Your task to perform on an android device: change keyboard looks Image 0: 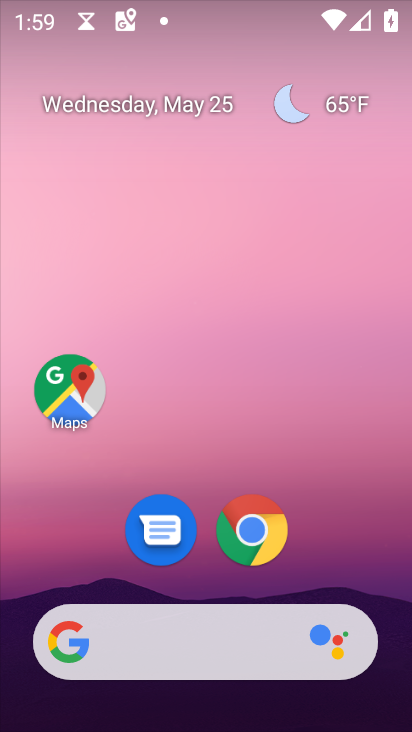
Step 0: drag from (332, 564) to (348, 263)
Your task to perform on an android device: change keyboard looks Image 1: 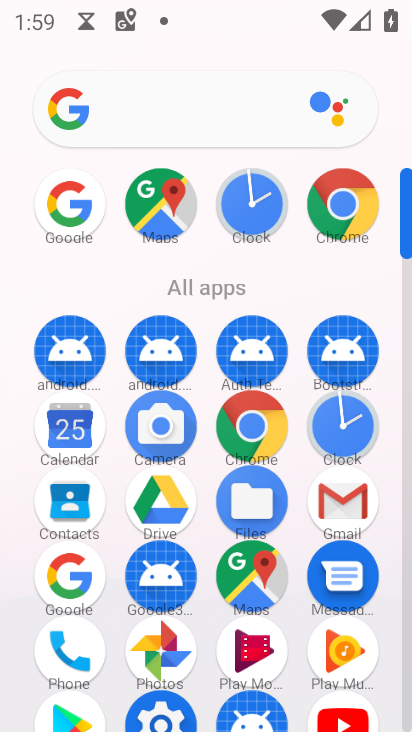
Step 1: drag from (197, 628) to (227, 397)
Your task to perform on an android device: change keyboard looks Image 2: 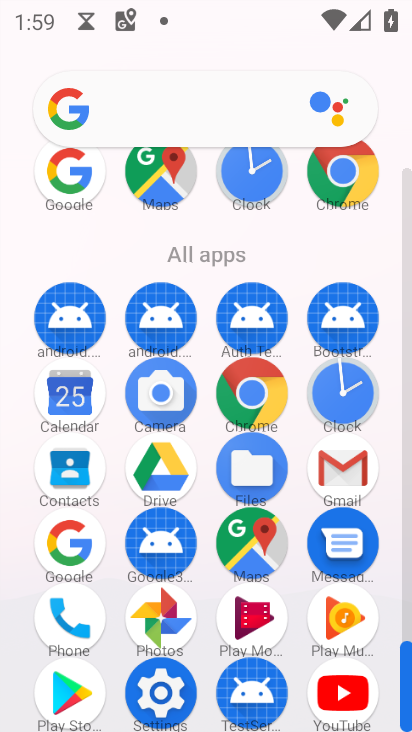
Step 2: click (148, 688)
Your task to perform on an android device: change keyboard looks Image 3: 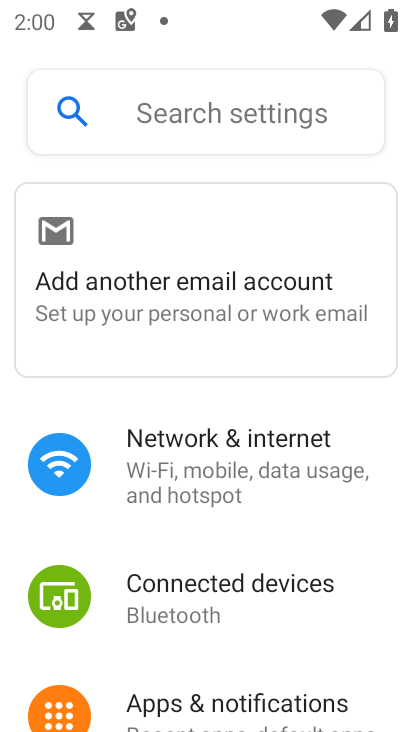
Step 3: drag from (194, 690) to (251, 196)
Your task to perform on an android device: change keyboard looks Image 4: 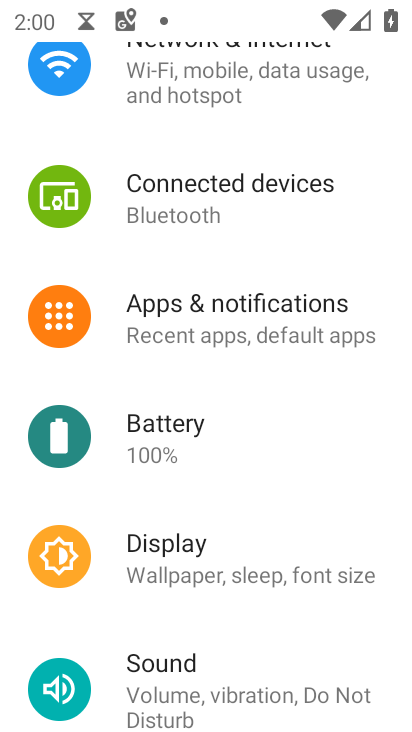
Step 4: drag from (221, 620) to (250, 228)
Your task to perform on an android device: change keyboard looks Image 5: 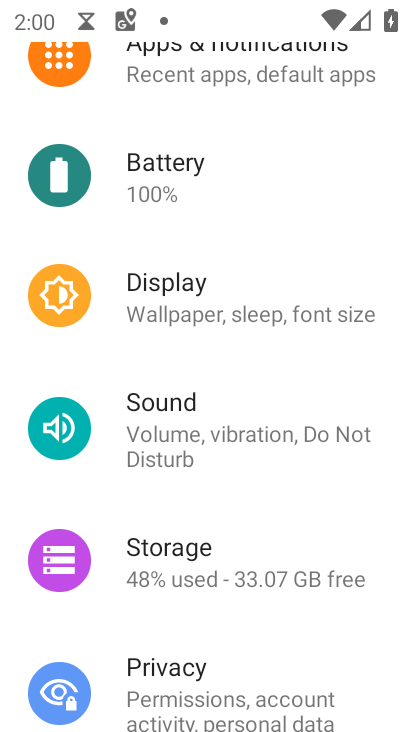
Step 5: drag from (200, 636) to (209, 175)
Your task to perform on an android device: change keyboard looks Image 6: 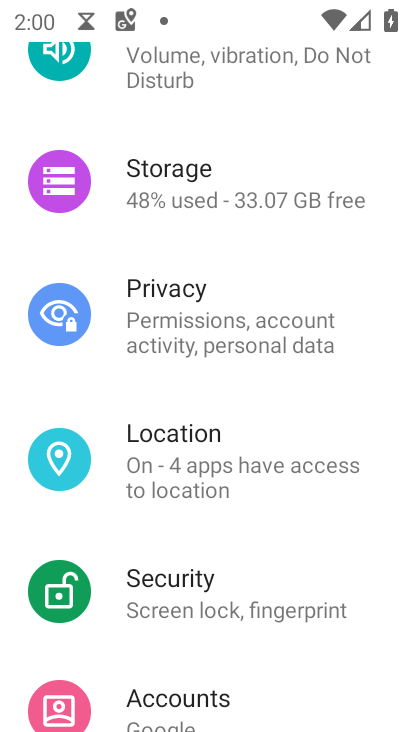
Step 6: drag from (229, 636) to (240, 357)
Your task to perform on an android device: change keyboard looks Image 7: 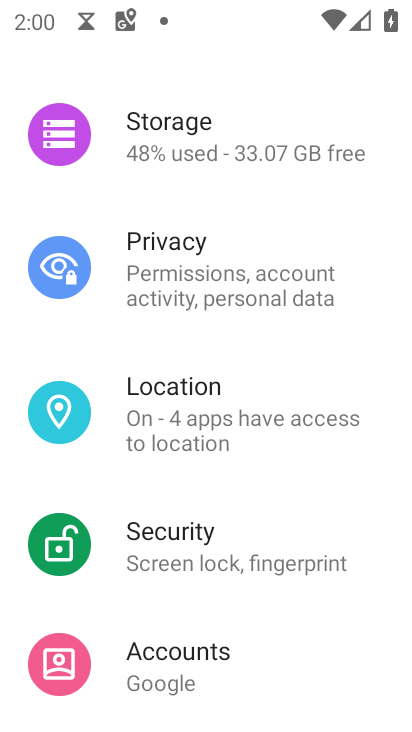
Step 7: drag from (256, 432) to (256, 284)
Your task to perform on an android device: change keyboard looks Image 8: 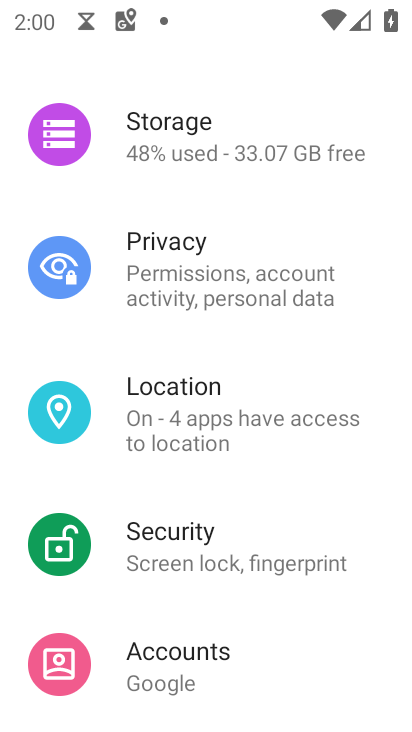
Step 8: drag from (241, 518) to (281, 350)
Your task to perform on an android device: change keyboard looks Image 9: 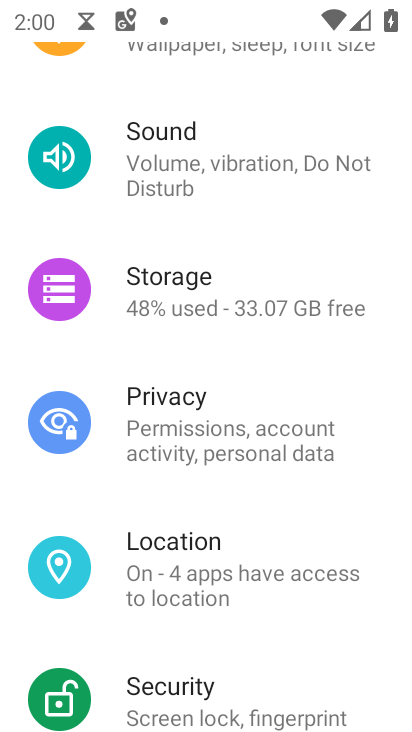
Step 9: drag from (258, 580) to (296, 284)
Your task to perform on an android device: change keyboard looks Image 10: 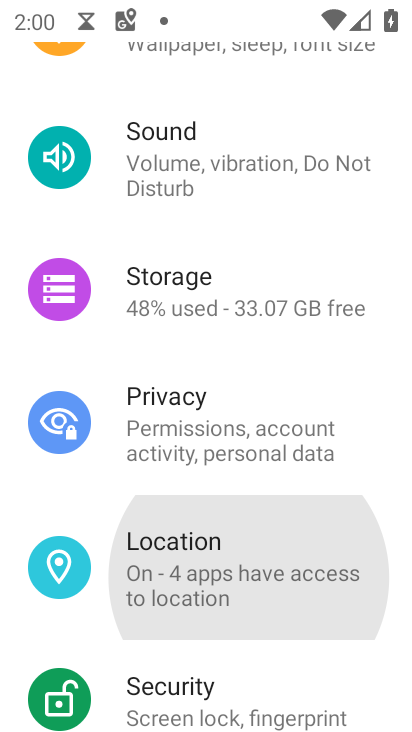
Step 10: drag from (280, 567) to (308, 373)
Your task to perform on an android device: change keyboard looks Image 11: 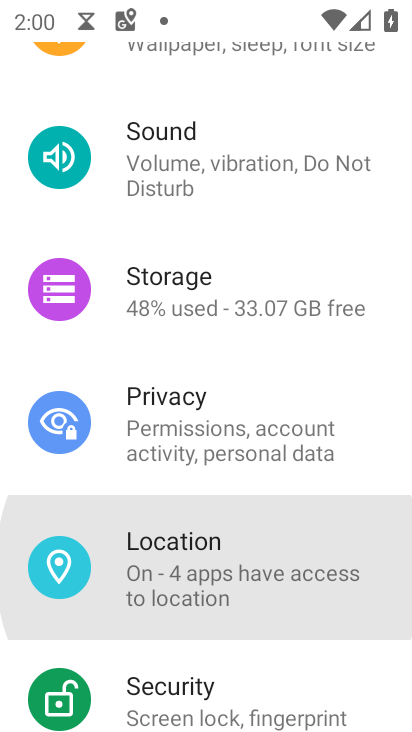
Step 11: drag from (290, 461) to (293, 270)
Your task to perform on an android device: change keyboard looks Image 12: 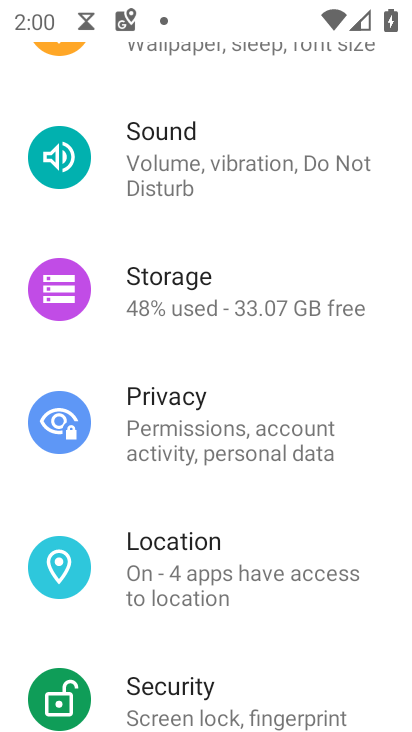
Step 12: drag from (252, 587) to (252, 417)
Your task to perform on an android device: change keyboard looks Image 13: 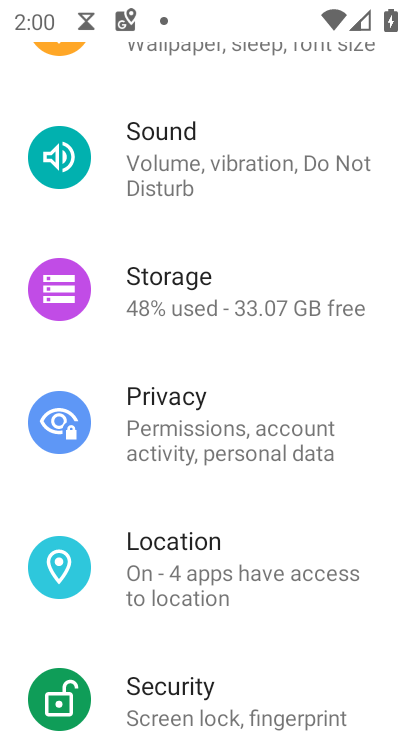
Step 13: drag from (231, 585) to (271, 303)
Your task to perform on an android device: change keyboard looks Image 14: 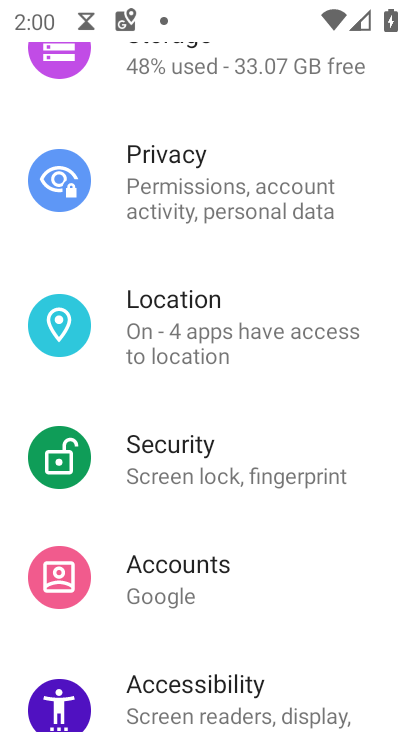
Step 14: drag from (284, 624) to (295, 156)
Your task to perform on an android device: change keyboard looks Image 15: 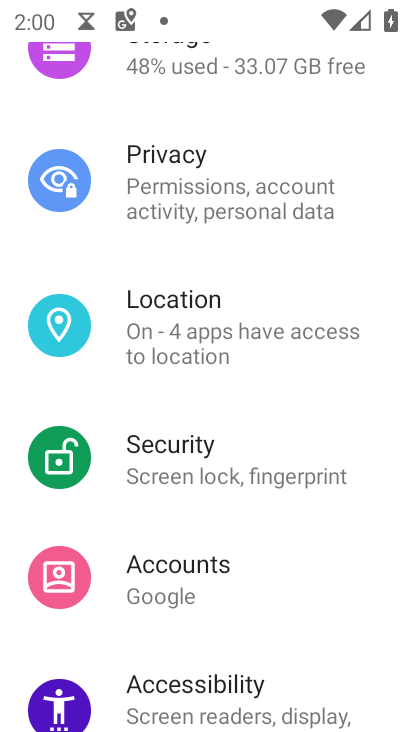
Step 15: drag from (210, 618) to (225, 249)
Your task to perform on an android device: change keyboard looks Image 16: 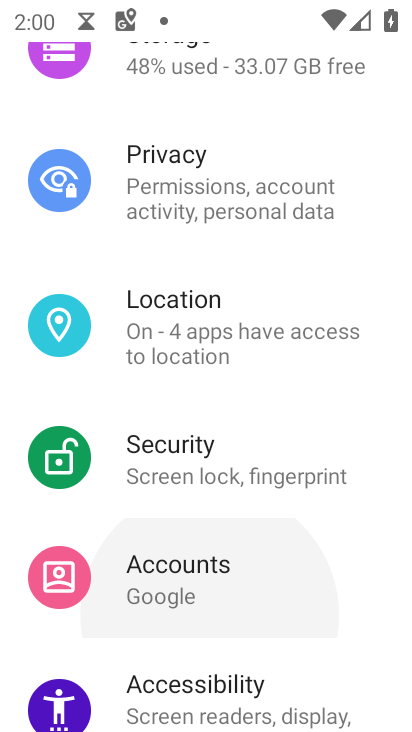
Step 16: drag from (191, 582) to (224, 299)
Your task to perform on an android device: change keyboard looks Image 17: 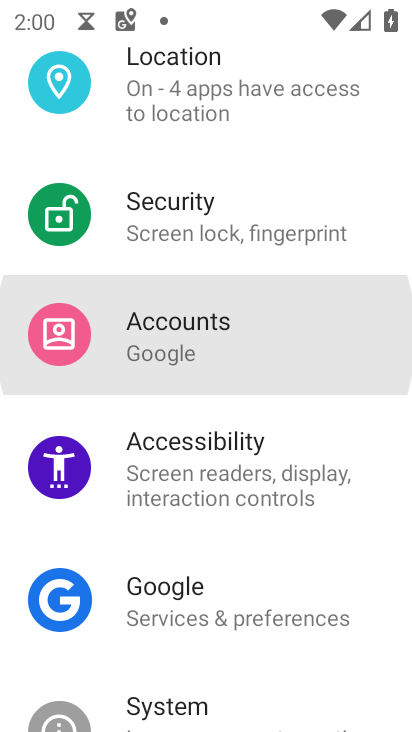
Step 17: drag from (254, 573) to (281, 342)
Your task to perform on an android device: change keyboard looks Image 18: 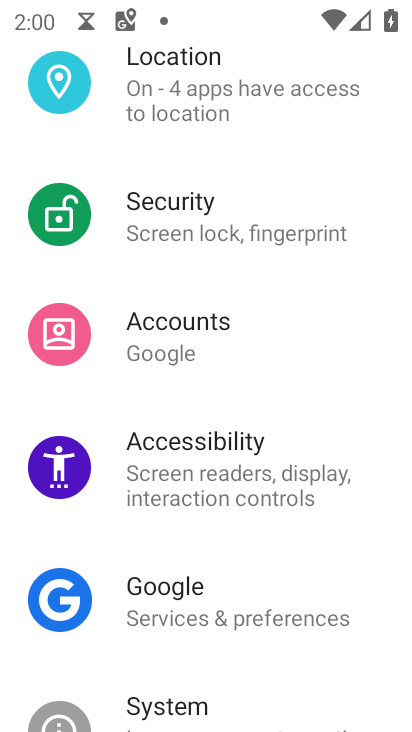
Step 18: drag from (245, 638) to (261, 422)
Your task to perform on an android device: change keyboard looks Image 19: 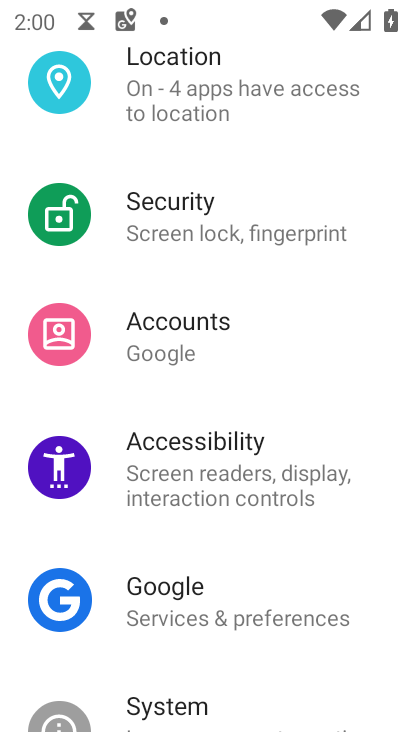
Step 19: click (208, 711)
Your task to perform on an android device: change keyboard looks Image 20: 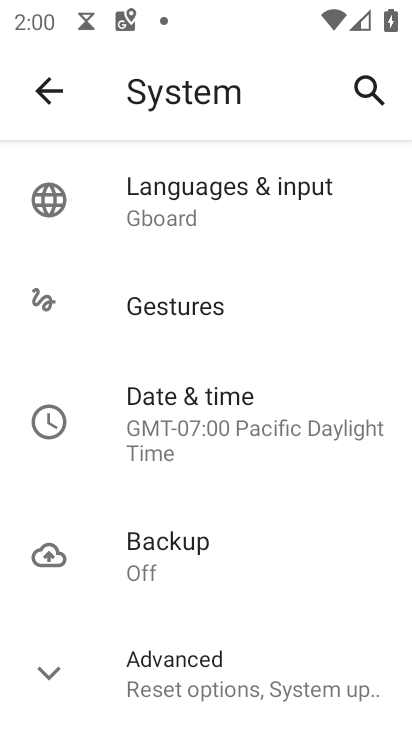
Step 20: click (195, 185)
Your task to perform on an android device: change keyboard looks Image 21: 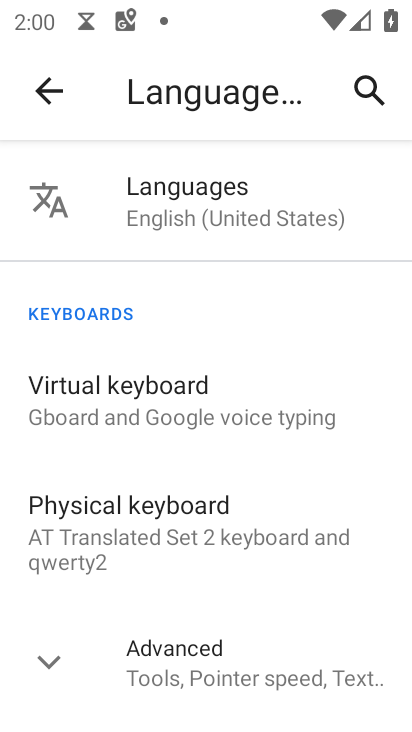
Step 21: click (132, 395)
Your task to perform on an android device: change keyboard looks Image 22: 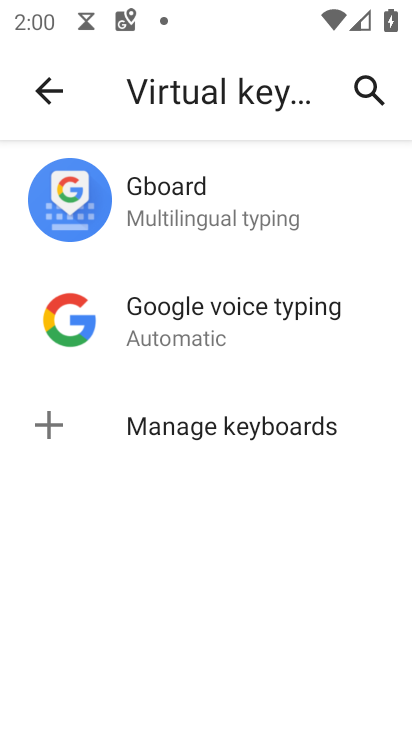
Step 22: click (162, 232)
Your task to perform on an android device: change keyboard looks Image 23: 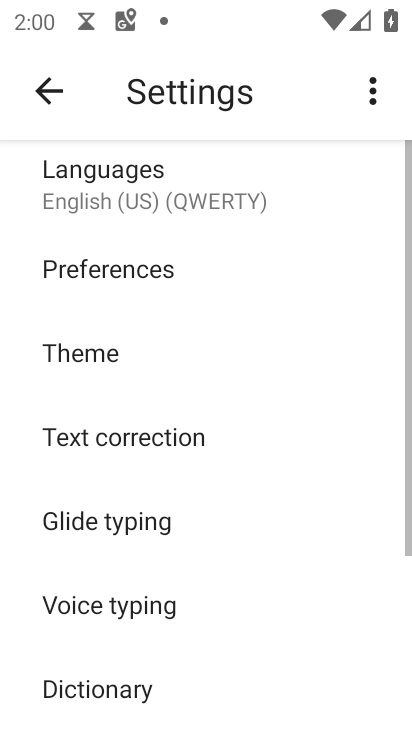
Step 23: click (126, 333)
Your task to perform on an android device: change keyboard looks Image 24: 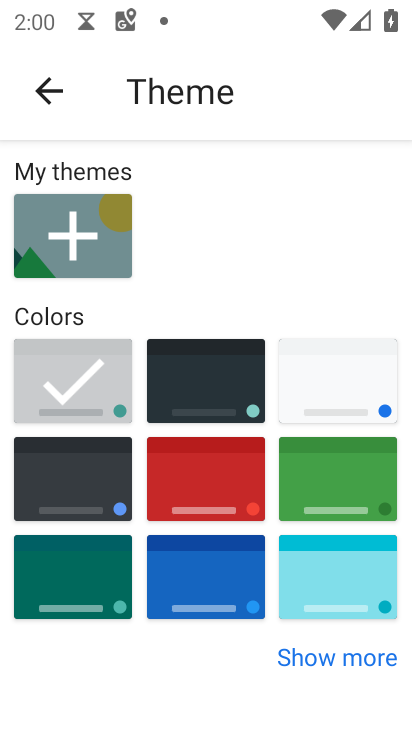
Step 24: click (202, 381)
Your task to perform on an android device: change keyboard looks Image 25: 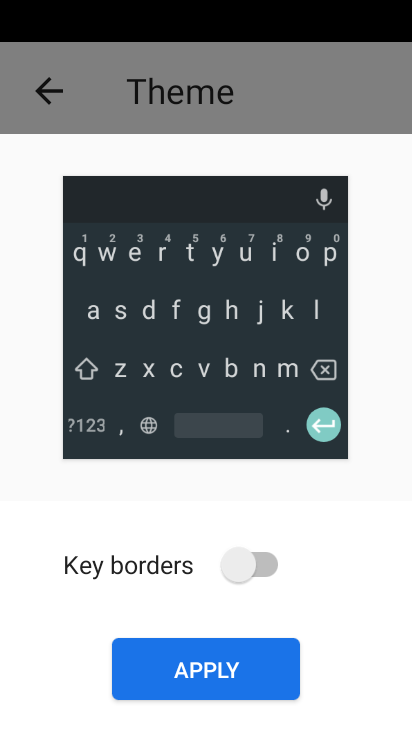
Step 25: click (203, 671)
Your task to perform on an android device: change keyboard looks Image 26: 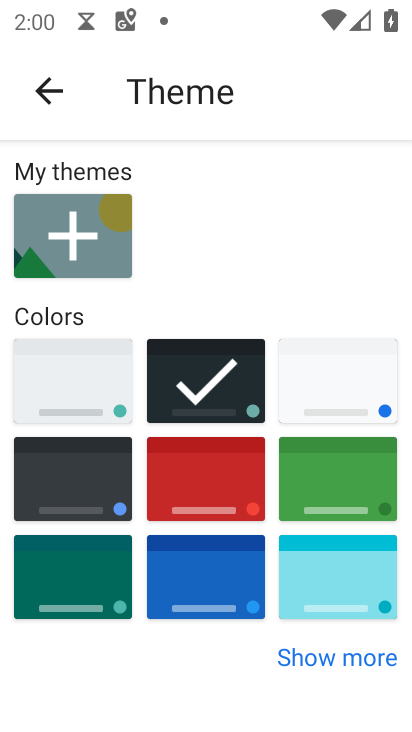
Step 26: task complete